Your task to perform on an android device: Open Reddit.com Image 0: 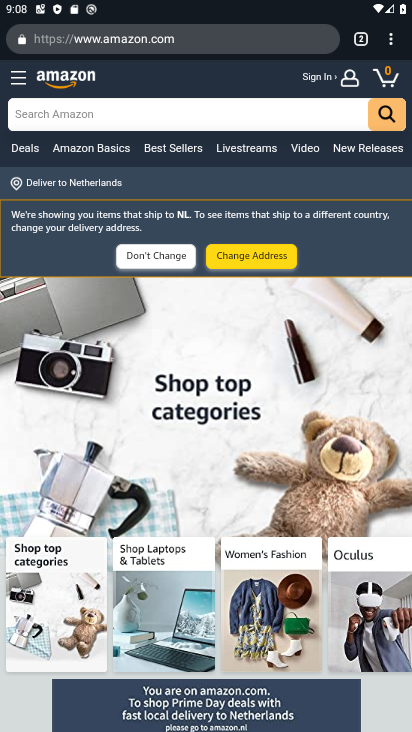
Step 0: click (247, 34)
Your task to perform on an android device: Open Reddit.com Image 1: 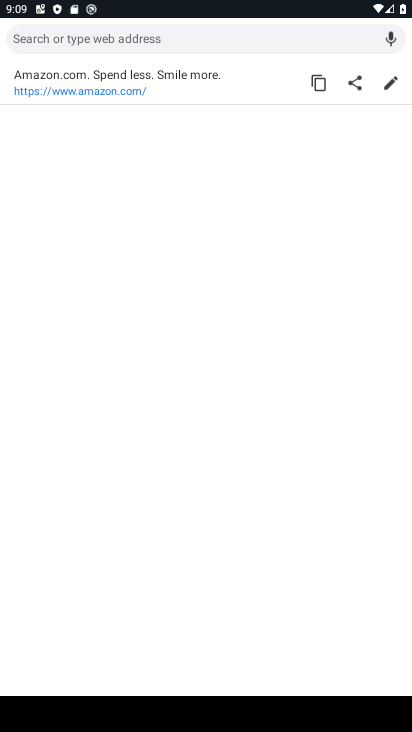
Step 1: type "Reddit.com"
Your task to perform on an android device: Open Reddit.com Image 2: 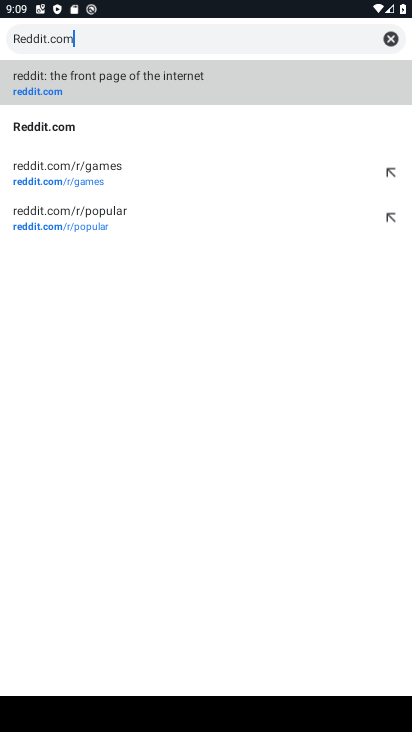
Step 2: click (74, 126)
Your task to perform on an android device: Open Reddit.com Image 3: 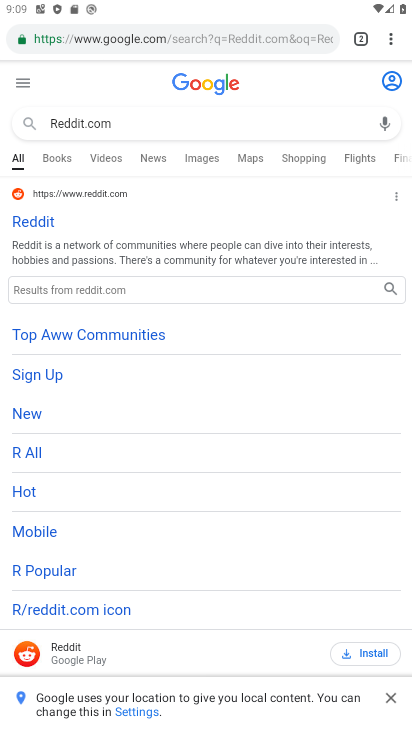
Step 3: click (23, 218)
Your task to perform on an android device: Open Reddit.com Image 4: 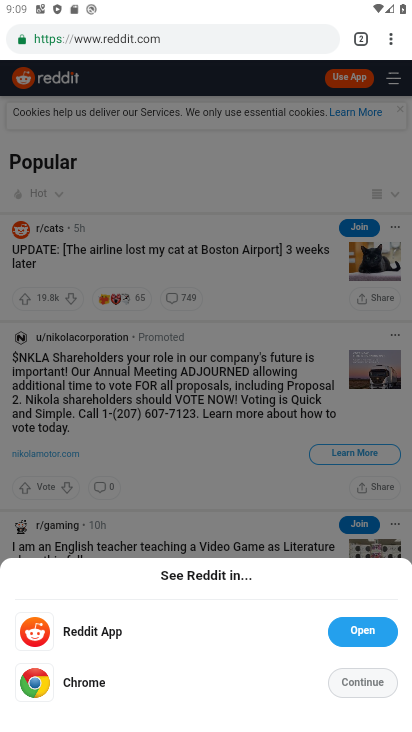
Step 4: task complete